Your task to perform on an android device: Set the phone to "Do not disturb". Image 0: 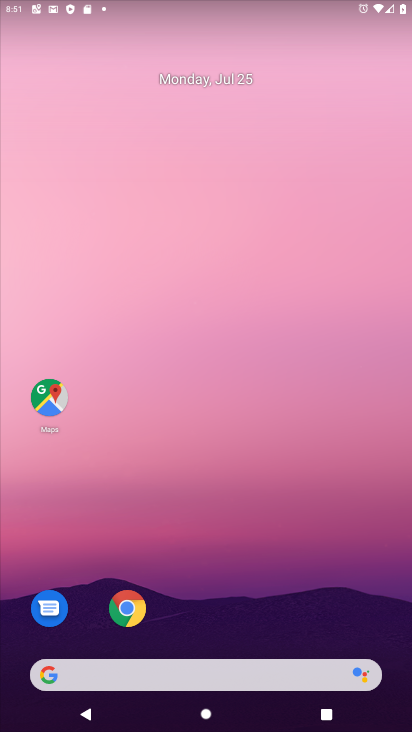
Step 0: drag from (149, 706) to (40, 26)
Your task to perform on an android device: Set the phone to "Do not disturb". Image 1: 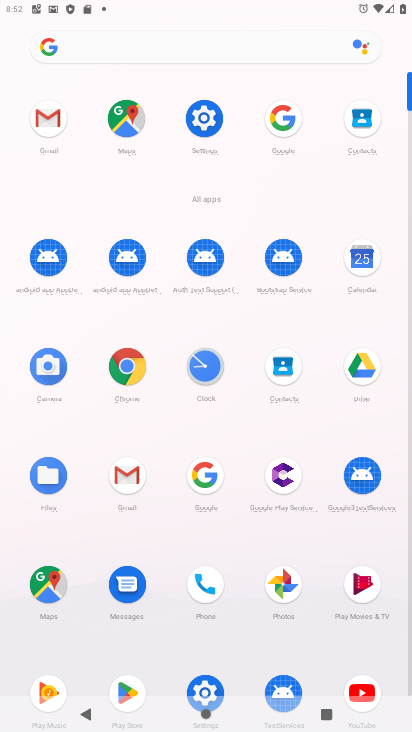
Step 1: click (213, 90)
Your task to perform on an android device: Set the phone to "Do not disturb". Image 2: 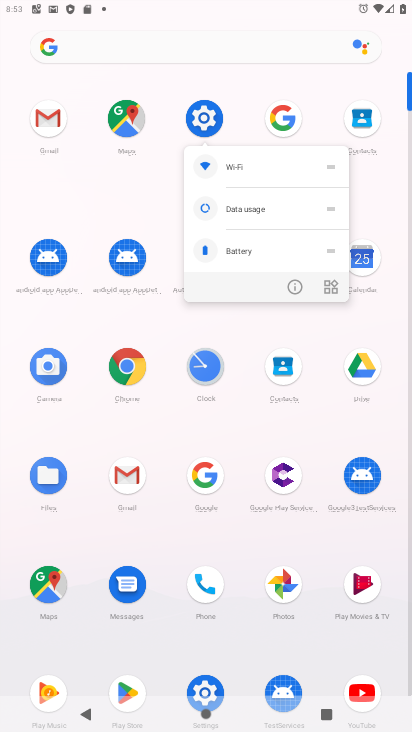
Step 2: click (193, 127)
Your task to perform on an android device: Set the phone to "Do not disturb". Image 3: 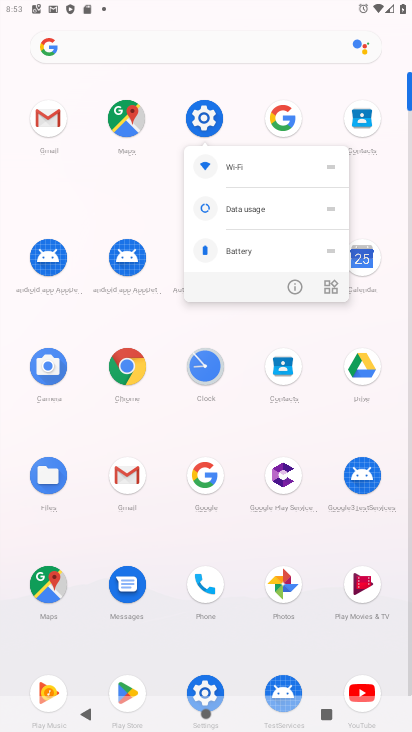
Step 3: click (193, 127)
Your task to perform on an android device: Set the phone to "Do not disturb". Image 4: 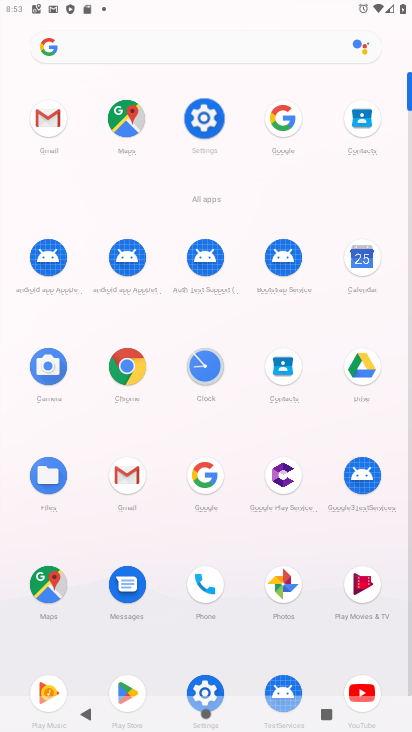
Step 4: click (193, 127)
Your task to perform on an android device: Set the phone to "Do not disturb". Image 5: 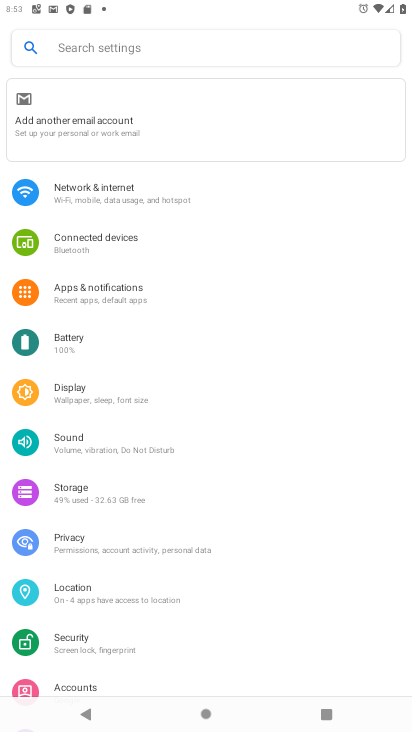
Step 5: click (117, 444)
Your task to perform on an android device: Set the phone to "Do not disturb". Image 6: 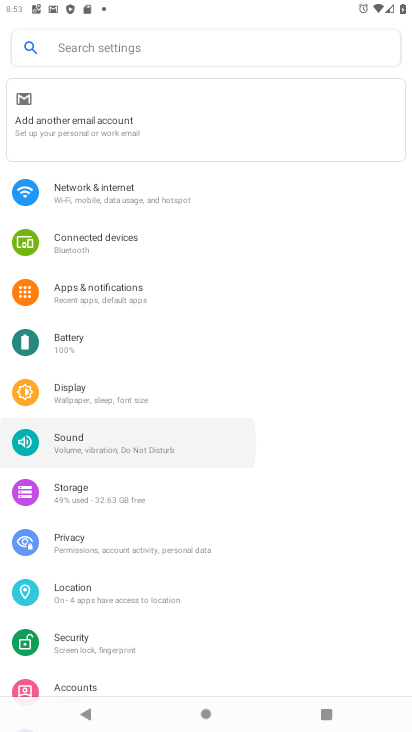
Step 6: click (117, 444)
Your task to perform on an android device: Set the phone to "Do not disturb". Image 7: 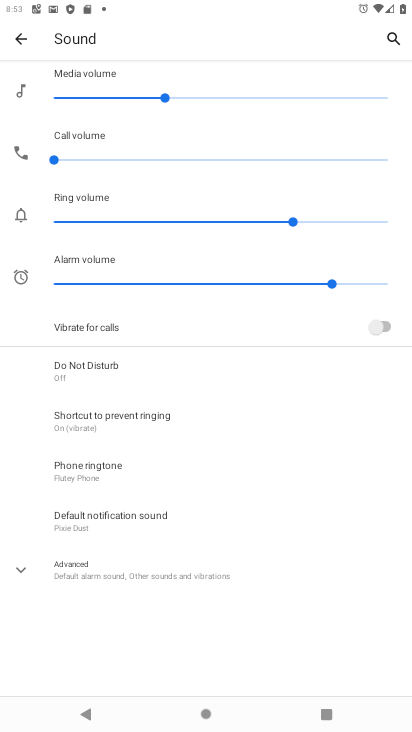
Step 7: click (135, 371)
Your task to perform on an android device: Set the phone to "Do not disturb". Image 8: 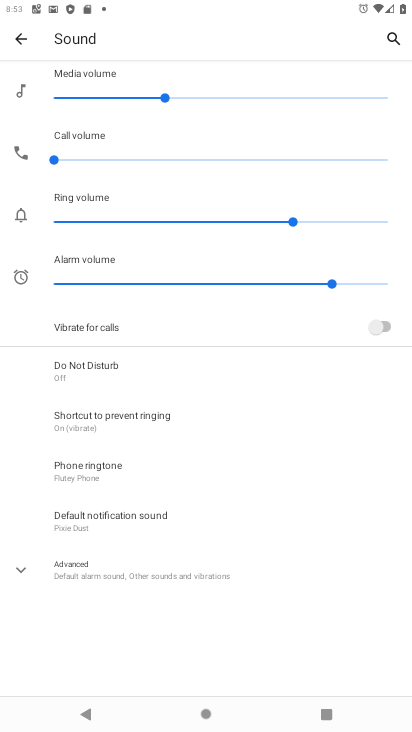
Step 8: click (135, 371)
Your task to perform on an android device: Set the phone to "Do not disturb". Image 9: 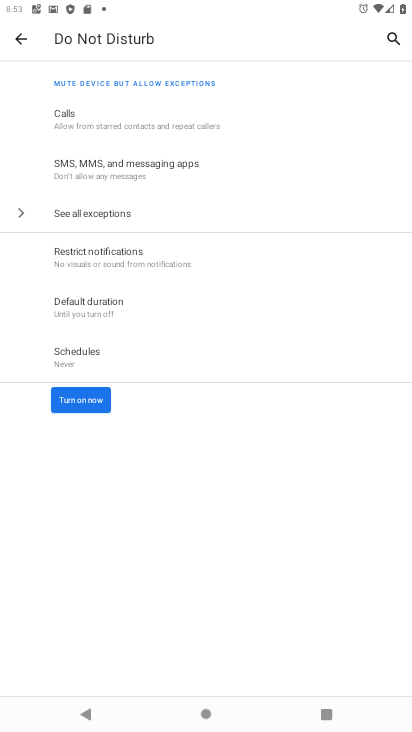
Step 9: click (88, 406)
Your task to perform on an android device: Set the phone to "Do not disturb". Image 10: 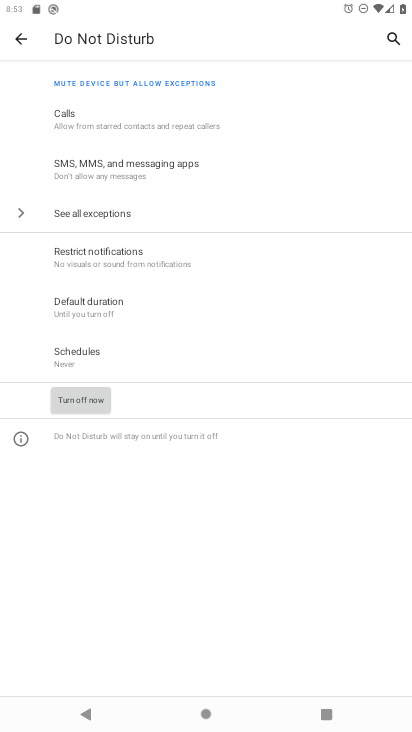
Step 10: task complete